Your task to perform on an android device: open device folders in google photos Image 0: 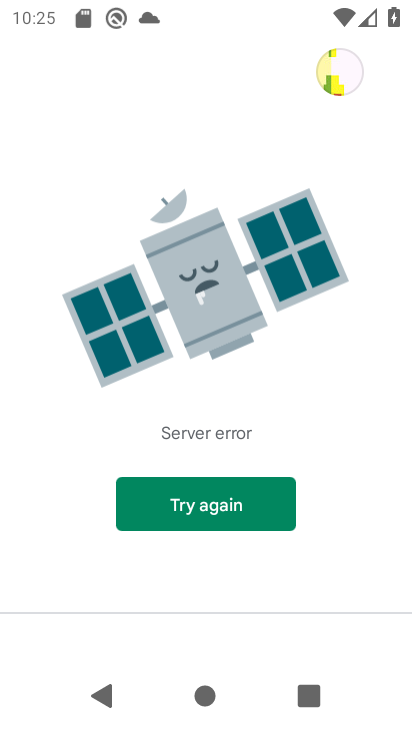
Step 0: press home button
Your task to perform on an android device: open device folders in google photos Image 1: 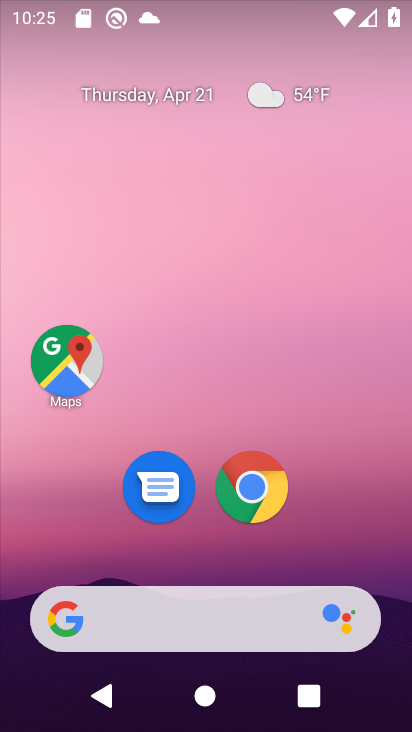
Step 1: drag from (383, 534) to (367, 145)
Your task to perform on an android device: open device folders in google photos Image 2: 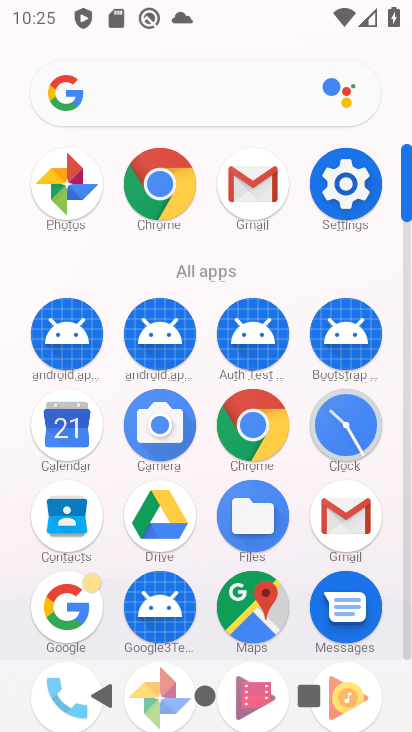
Step 2: drag from (188, 567) to (206, 299)
Your task to perform on an android device: open device folders in google photos Image 3: 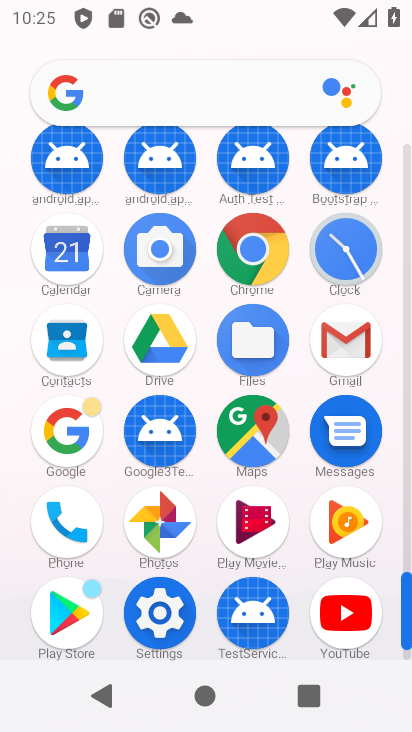
Step 3: click (141, 540)
Your task to perform on an android device: open device folders in google photos Image 4: 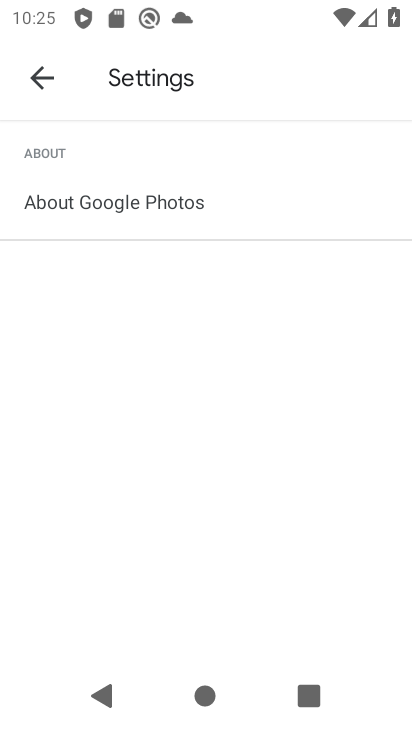
Step 4: click (40, 76)
Your task to perform on an android device: open device folders in google photos Image 5: 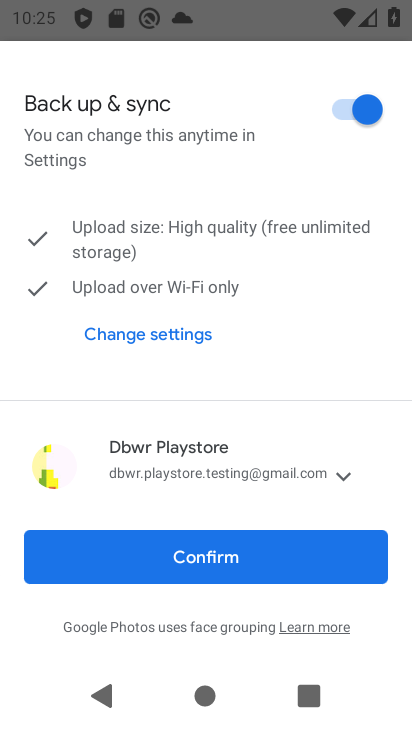
Step 5: click (169, 548)
Your task to perform on an android device: open device folders in google photos Image 6: 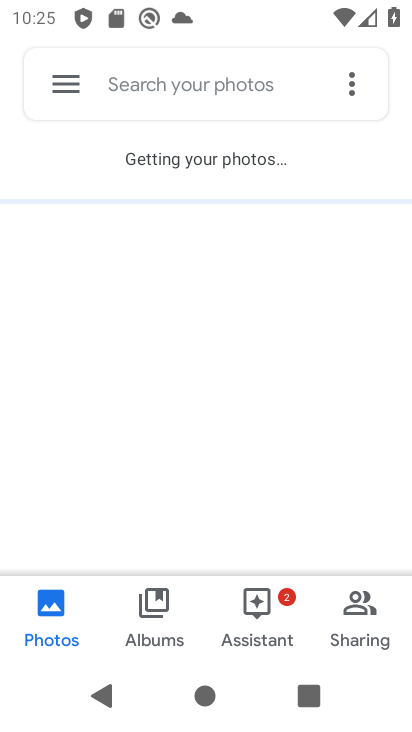
Step 6: click (51, 90)
Your task to perform on an android device: open device folders in google photos Image 7: 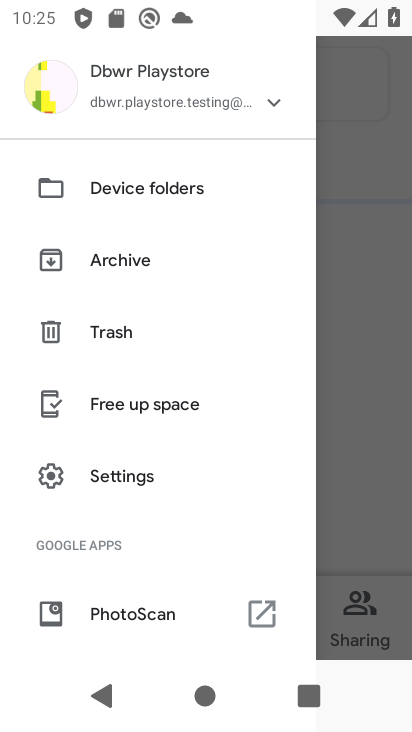
Step 7: click (70, 185)
Your task to perform on an android device: open device folders in google photos Image 8: 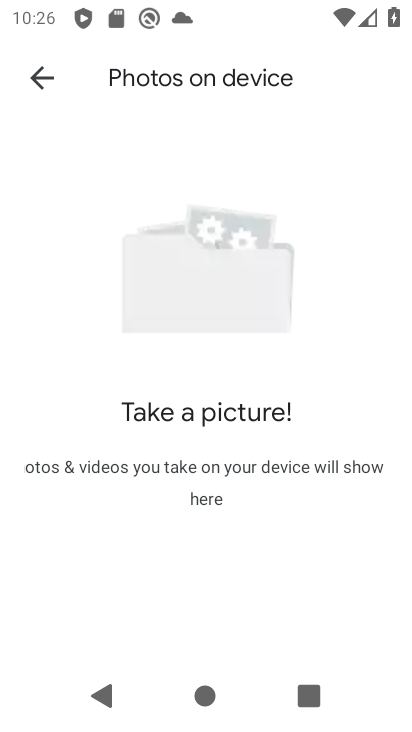
Step 8: task complete